Your task to perform on an android device: check storage Image 0: 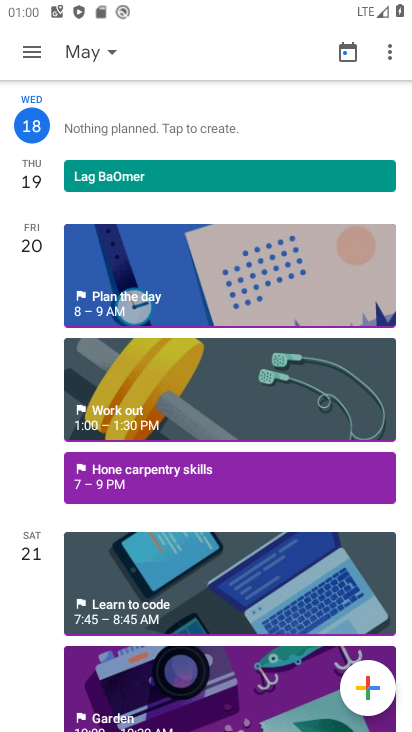
Step 0: press home button
Your task to perform on an android device: check storage Image 1: 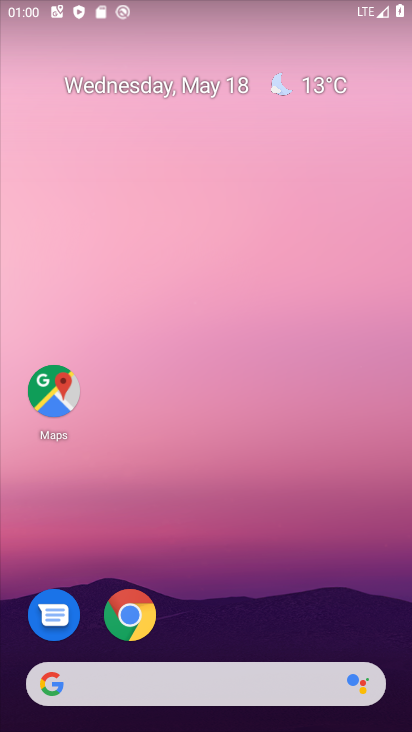
Step 1: drag from (208, 691) to (320, 281)
Your task to perform on an android device: check storage Image 2: 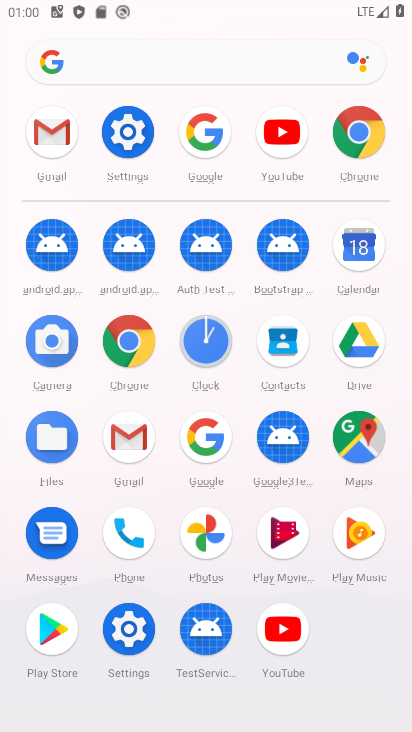
Step 2: click (129, 138)
Your task to perform on an android device: check storage Image 3: 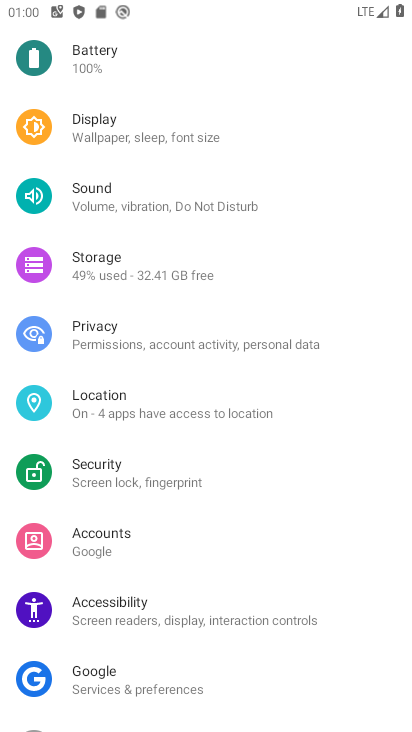
Step 3: click (113, 270)
Your task to perform on an android device: check storage Image 4: 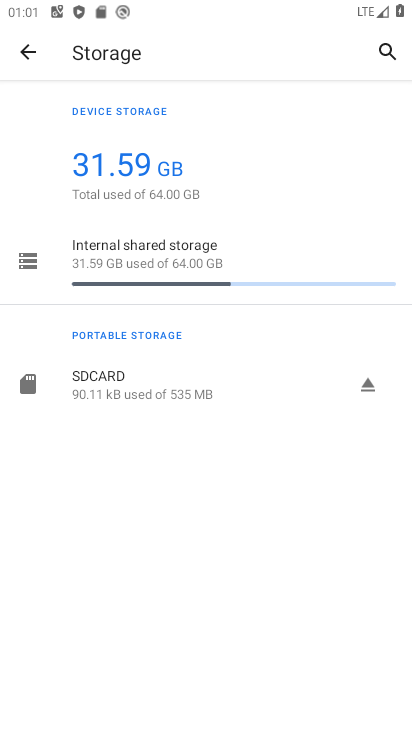
Step 4: task complete